Your task to perform on an android device: What is the news today? Image 0: 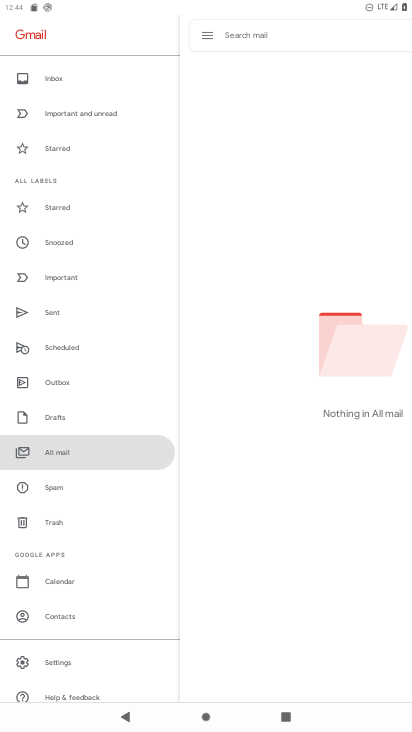
Step 0: press home button
Your task to perform on an android device: What is the news today? Image 1: 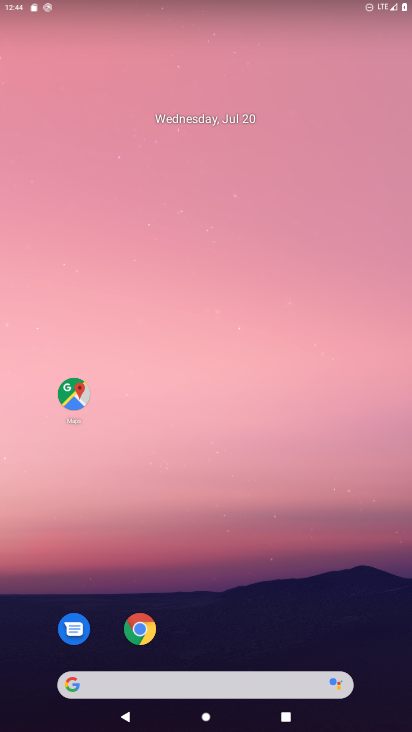
Step 1: drag from (191, 604) to (180, 177)
Your task to perform on an android device: What is the news today? Image 2: 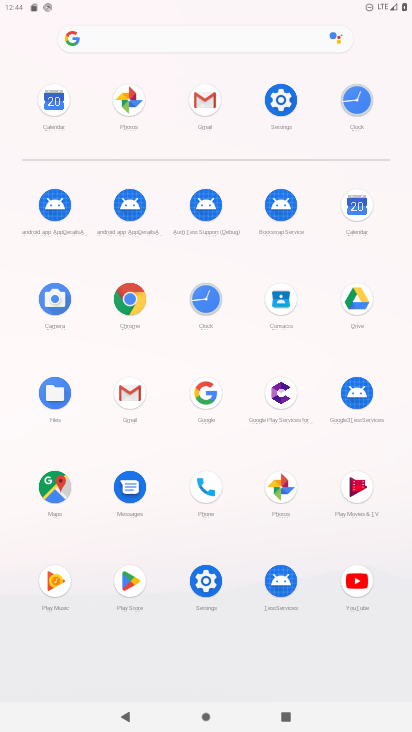
Step 2: click (200, 418)
Your task to perform on an android device: What is the news today? Image 3: 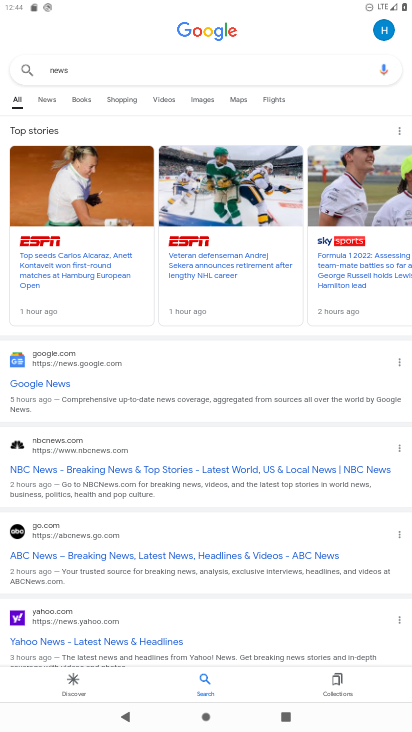
Step 3: click (91, 65)
Your task to perform on an android device: What is the news today? Image 4: 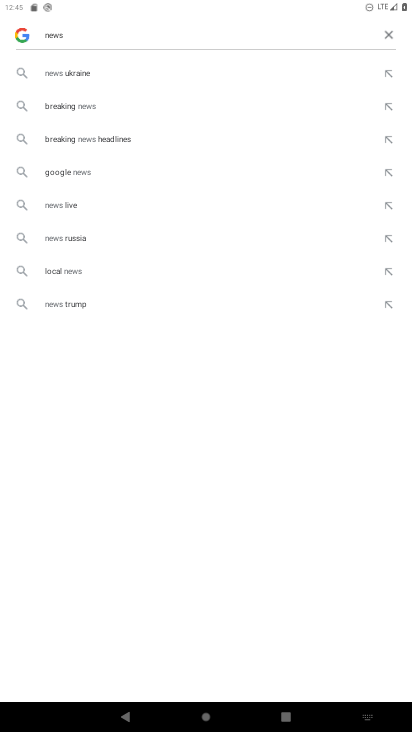
Step 4: type " today"
Your task to perform on an android device: What is the news today? Image 5: 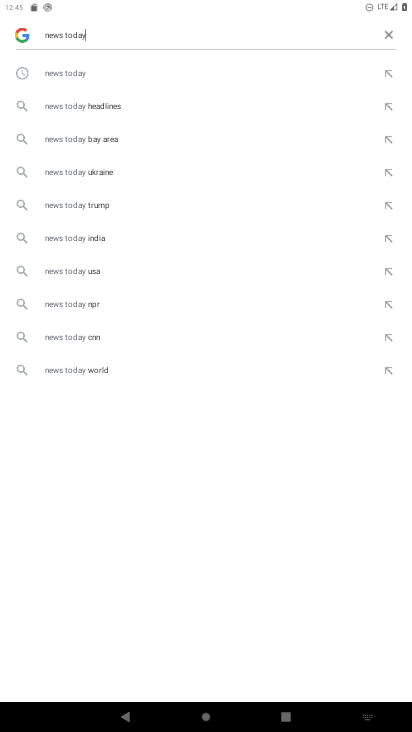
Step 5: click (76, 71)
Your task to perform on an android device: What is the news today? Image 6: 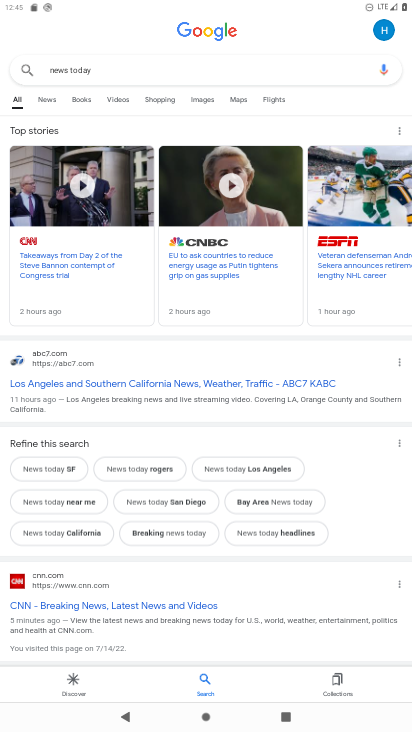
Step 6: task complete